Your task to perform on an android device: turn off smart reply in the gmail app Image 0: 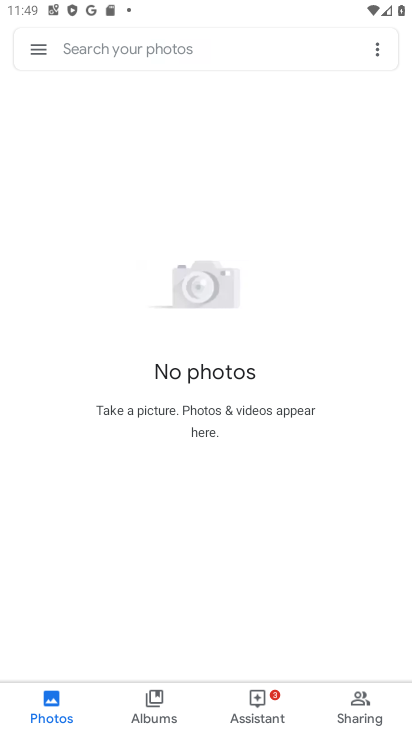
Step 0: press home button
Your task to perform on an android device: turn off smart reply in the gmail app Image 1: 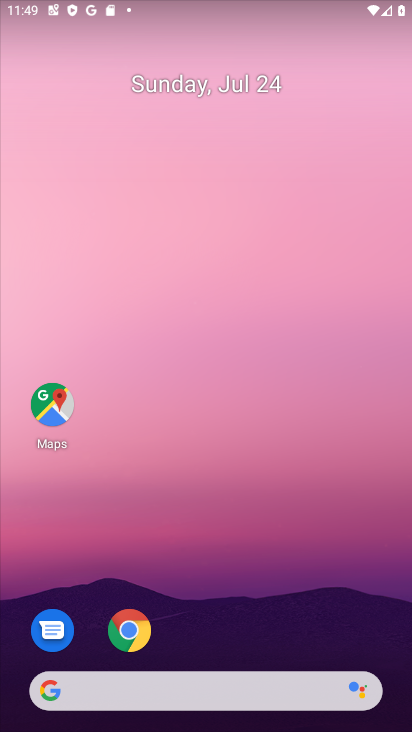
Step 1: drag from (251, 597) to (236, 35)
Your task to perform on an android device: turn off smart reply in the gmail app Image 2: 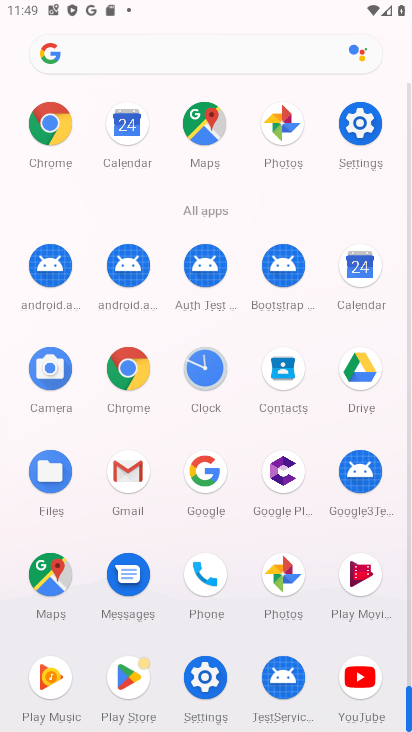
Step 2: click (126, 469)
Your task to perform on an android device: turn off smart reply in the gmail app Image 3: 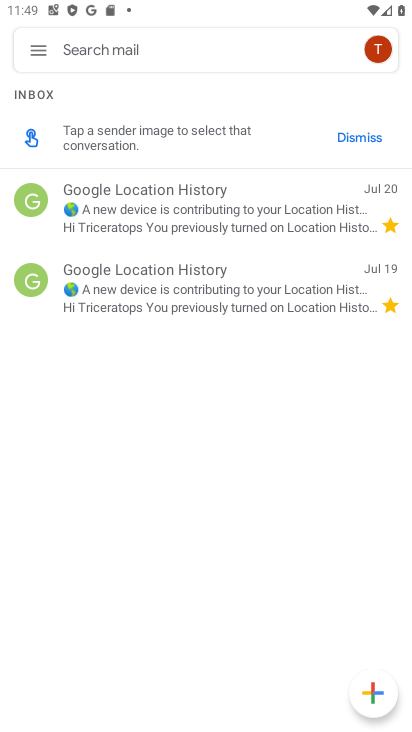
Step 3: click (33, 47)
Your task to perform on an android device: turn off smart reply in the gmail app Image 4: 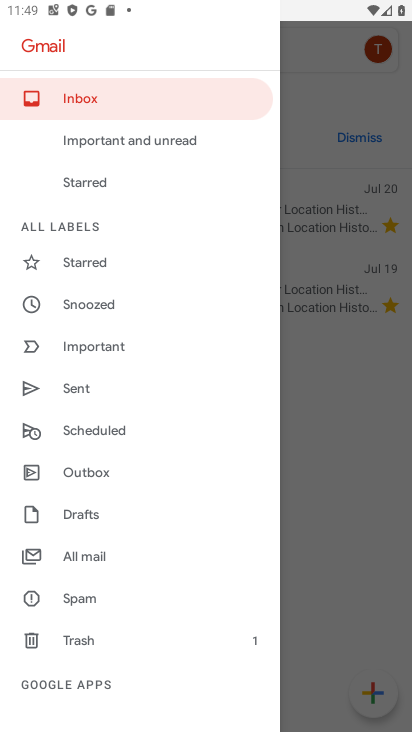
Step 4: drag from (132, 632) to (145, 155)
Your task to perform on an android device: turn off smart reply in the gmail app Image 5: 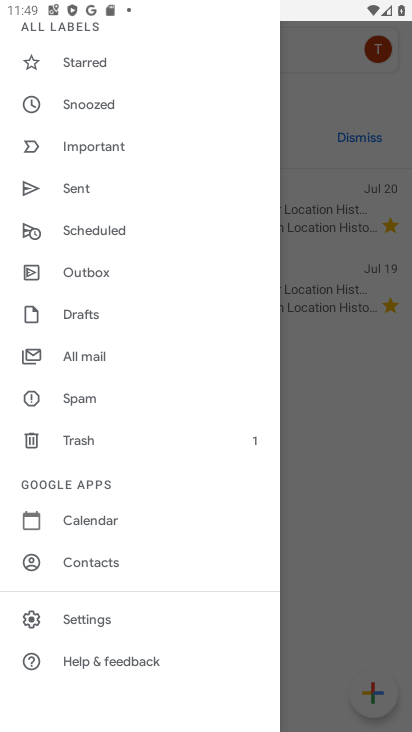
Step 5: click (71, 619)
Your task to perform on an android device: turn off smart reply in the gmail app Image 6: 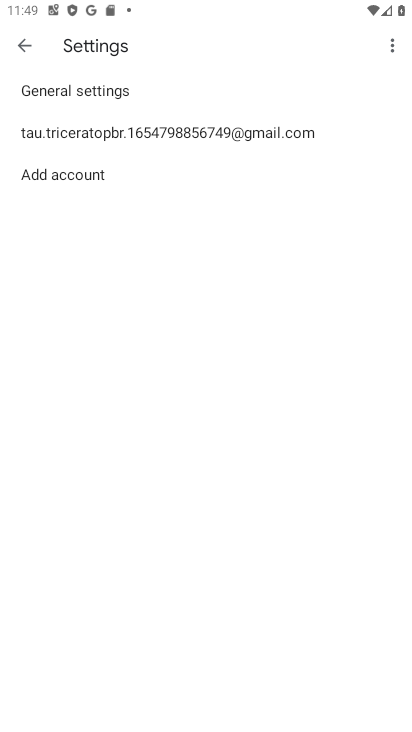
Step 6: click (216, 124)
Your task to perform on an android device: turn off smart reply in the gmail app Image 7: 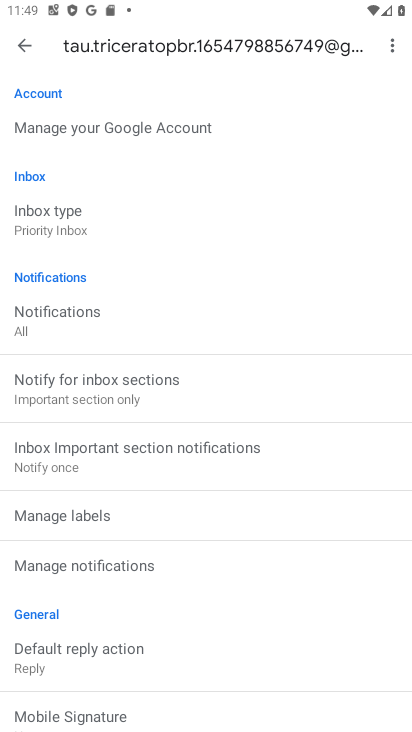
Step 7: drag from (198, 620) to (235, 222)
Your task to perform on an android device: turn off smart reply in the gmail app Image 8: 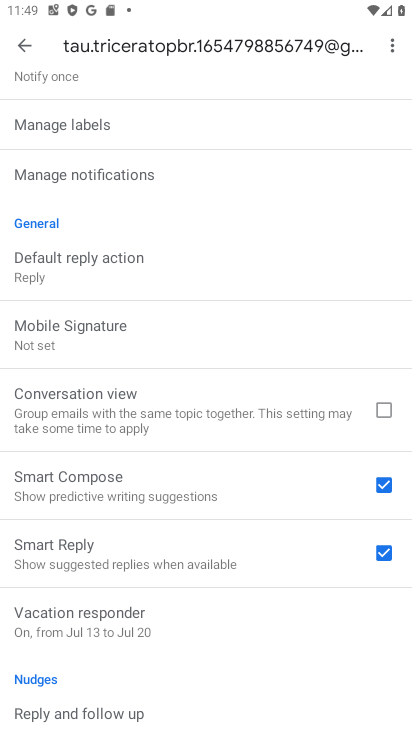
Step 8: click (175, 555)
Your task to perform on an android device: turn off smart reply in the gmail app Image 9: 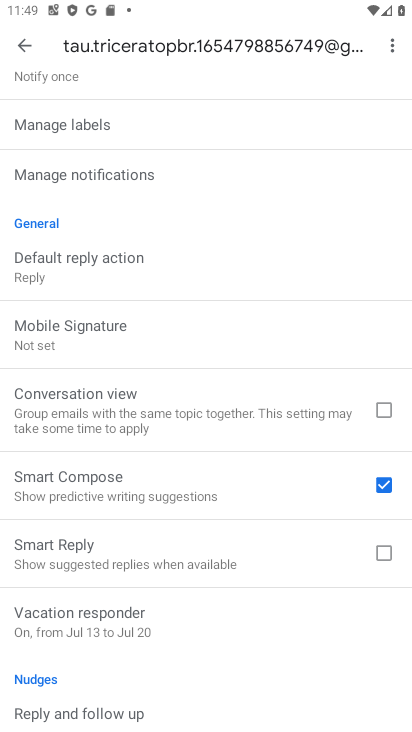
Step 9: task complete